Your task to perform on an android device: What is the recent news? Image 0: 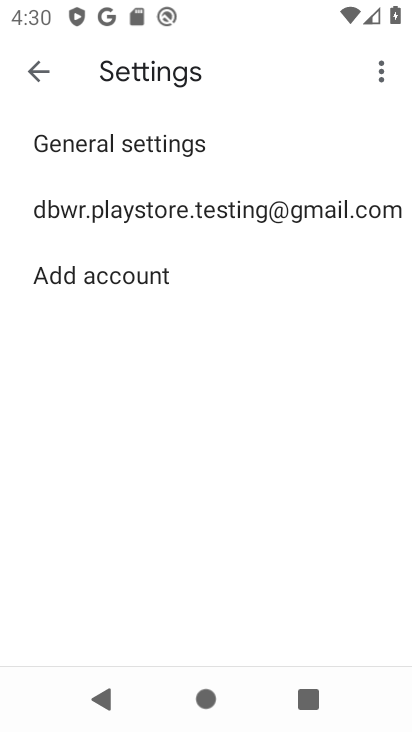
Step 0: press home button
Your task to perform on an android device: What is the recent news? Image 1: 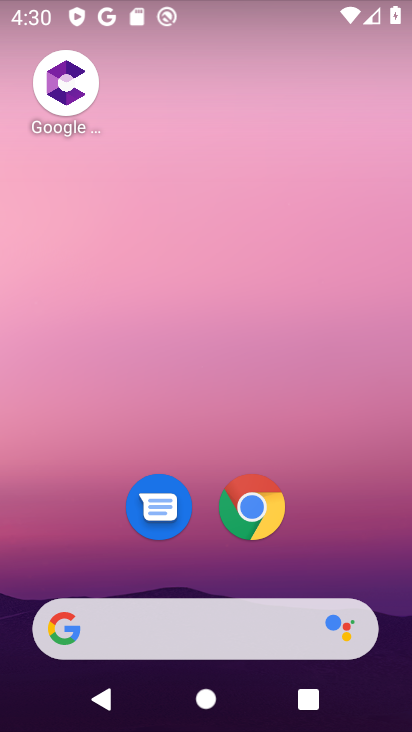
Step 1: click (257, 526)
Your task to perform on an android device: What is the recent news? Image 2: 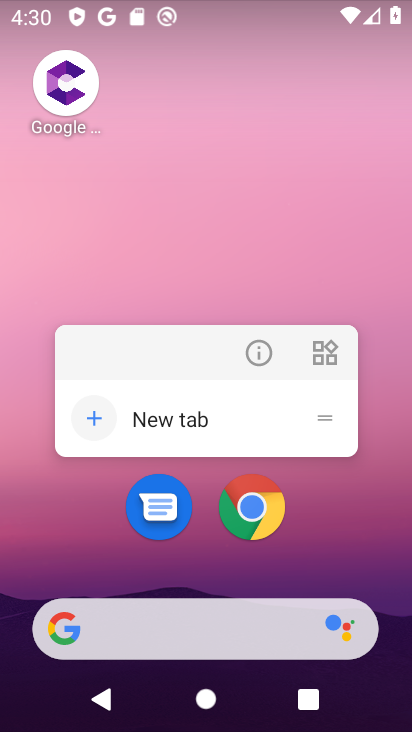
Step 2: click (251, 503)
Your task to perform on an android device: What is the recent news? Image 3: 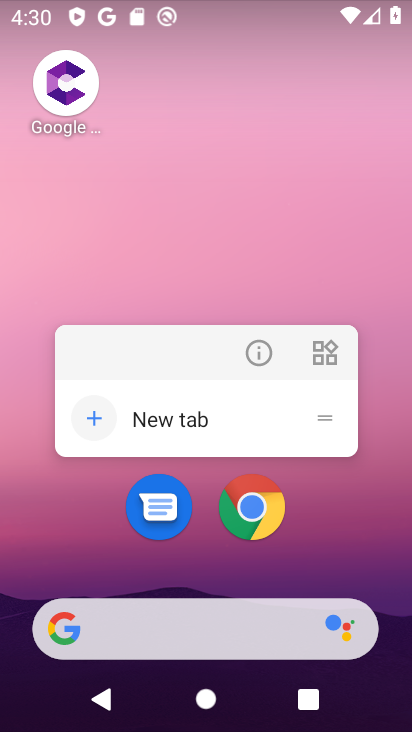
Step 3: click (251, 501)
Your task to perform on an android device: What is the recent news? Image 4: 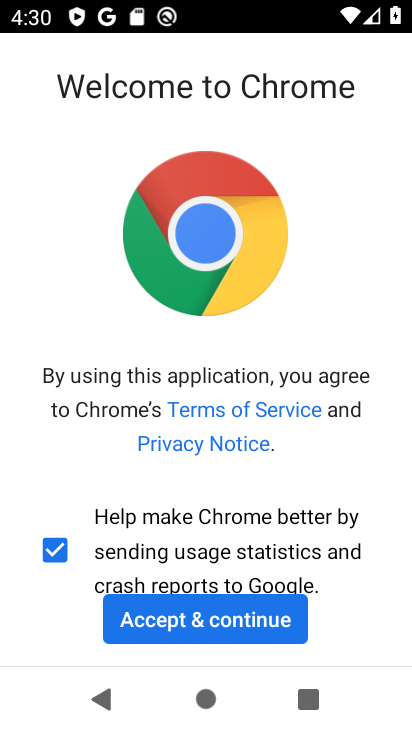
Step 4: click (203, 630)
Your task to perform on an android device: What is the recent news? Image 5: 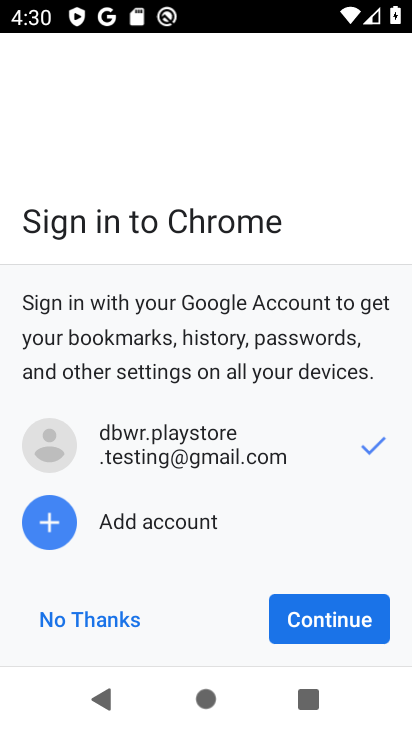
Step 5: click (139, 623)
Your task to perform on an android device: What is the recent news? Image 6: 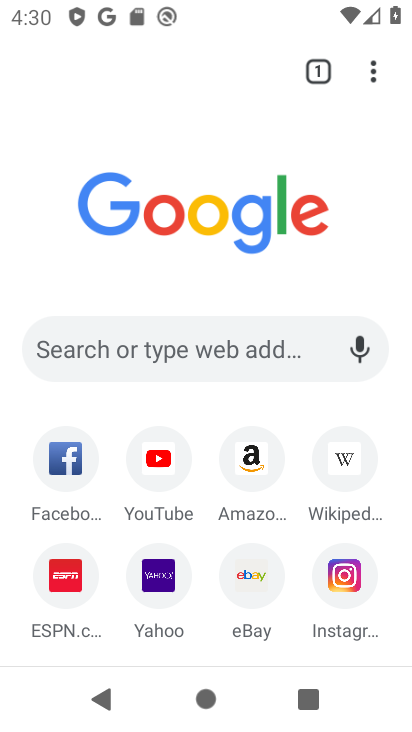
Step 6: task complete